Your task to perform on an android device: turn off airplane mode Image 0: 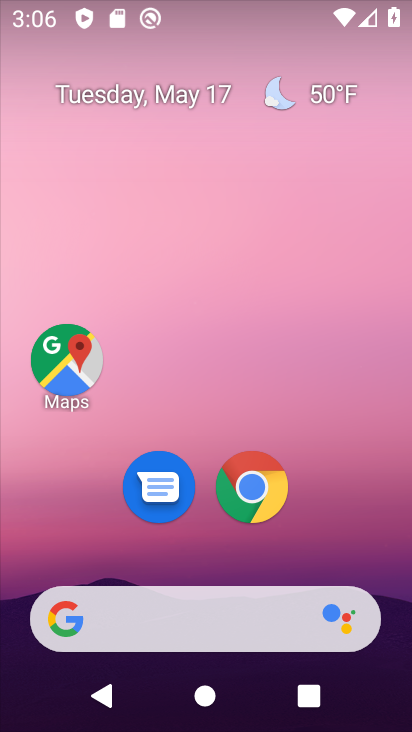
Step 0: drag from (382, 601) to (355, 5)
Your task to perform on an android device: turn off airplane mode Image 1: 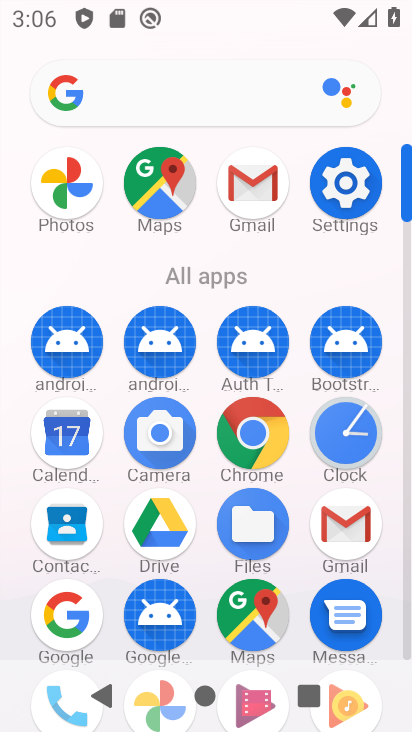
Step 1: click (407, 652)
Your task to perform on an android device: turn off airplane mode Image 2: 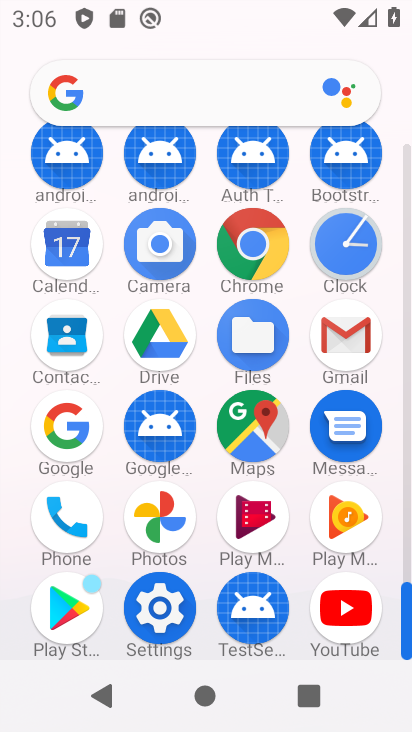
Step 2: click (166, 609)
Your task to perform on an android device: turn off airplane mode Image 3: 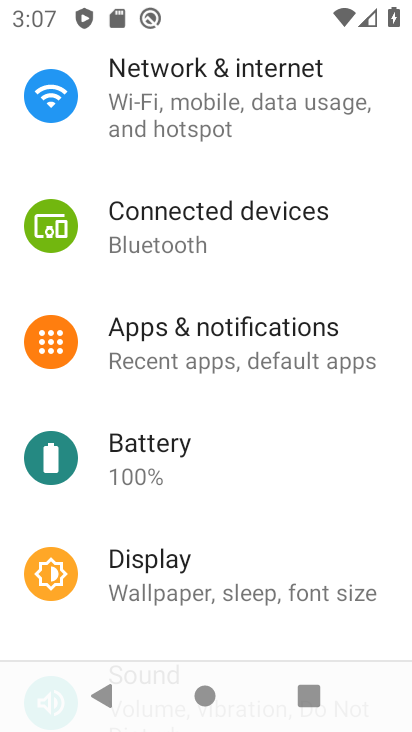
Step 3: click (162, 112)
Your task to perform on an android device: turn off airplane mode Image 4: 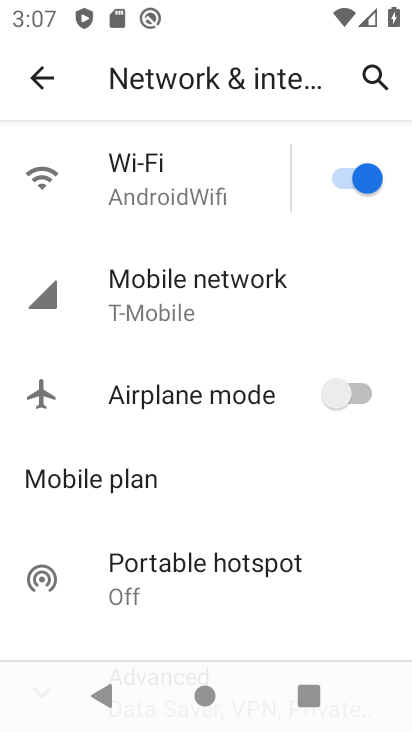
Step 4: task complete